Your task to perform on an android device: turn off improve location accuracy Image 0: 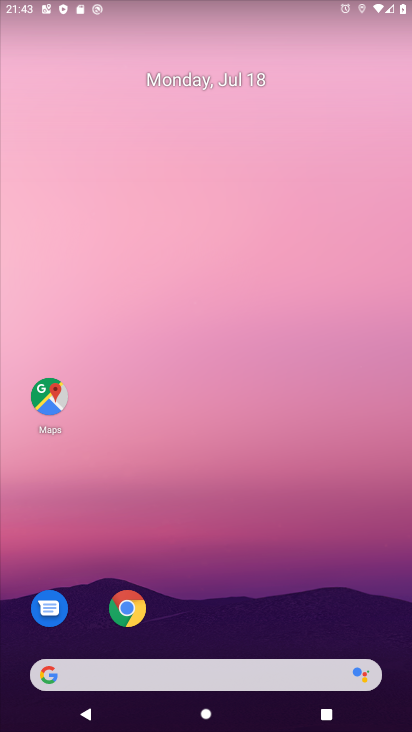
Step 0: drag from (52, 701) to (236, 59)
Your task to perform on an android device: turn off improve location accuracy Image 1: 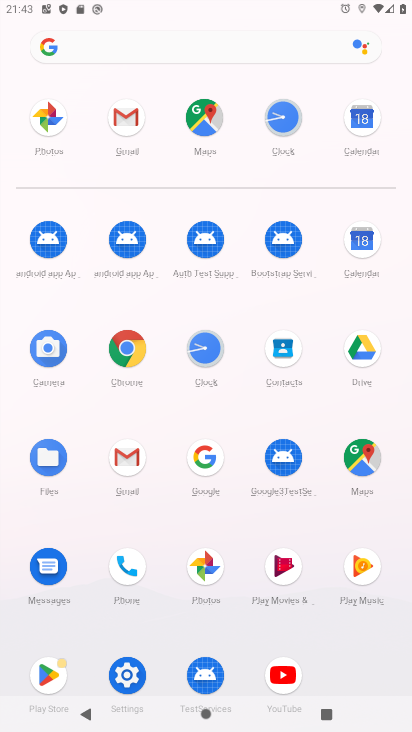
Step 1: click (136, 681)
Your task to perform on an android device: turn off improve location accuracy Image 2: 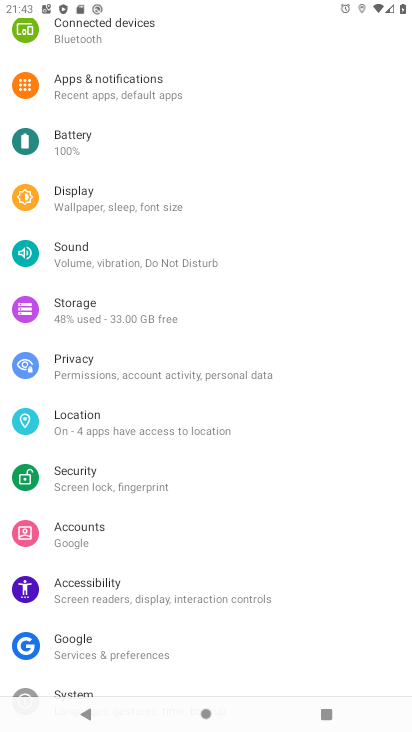
Step 2: click (117, 433)
Your task to perform on an android device: turn off improve location accuracy Image 3: 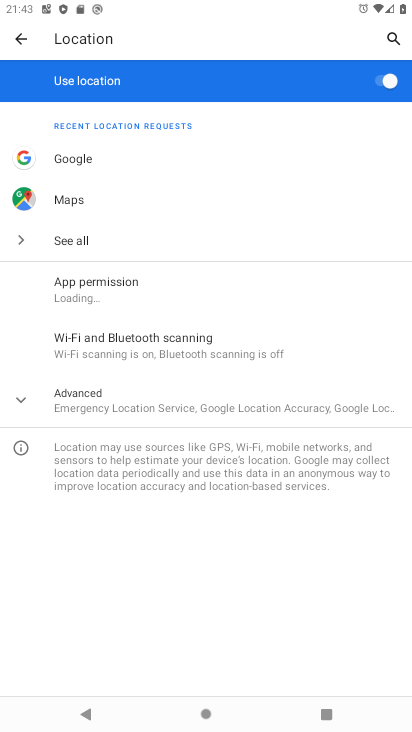
Step 3: click (105, 404)
Your task to perform on an android device: turn off improve location accuracy Image 4: 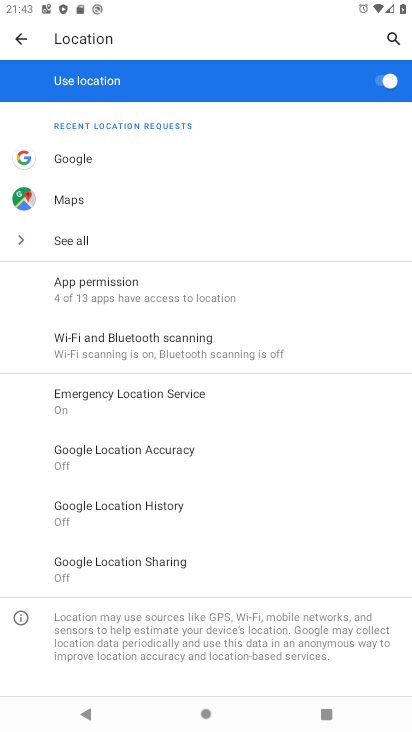
Step 4: click (141, 461)
Your task to perform on an android device: turn off improve location accuracy Image 5: 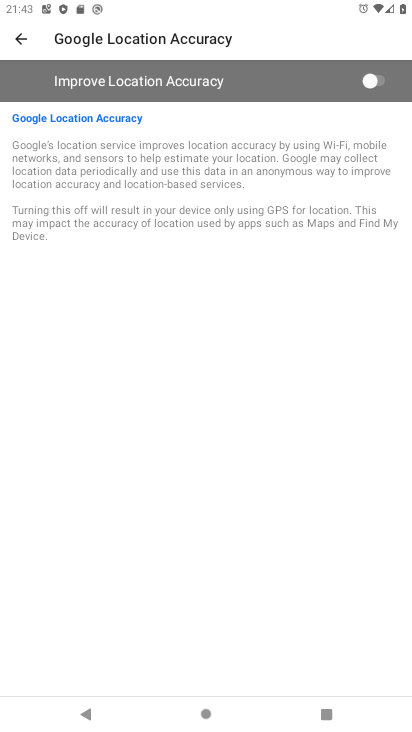
Step 5: task complete